Your task to perform on an android device: What's the weather today? Image 0: 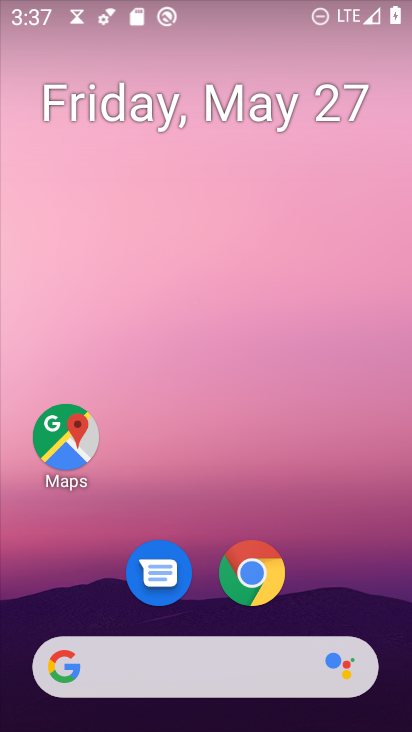
Step 0: click (166, 665)
Your task to perform on an android device: What's the weather today? Image 1: 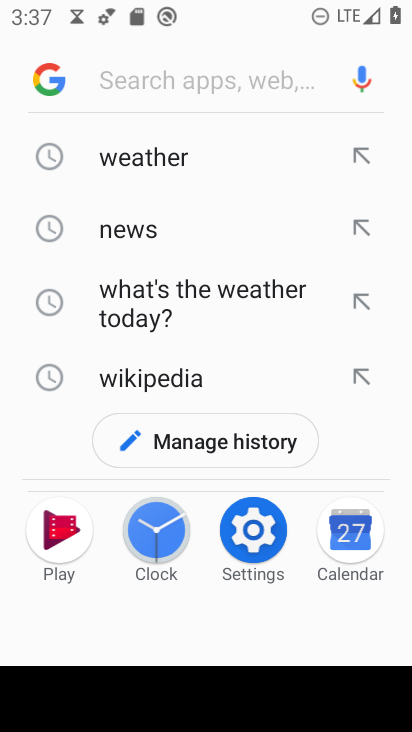
Step 1: type "what's the weather today"
Your task to perform on an android device: What's the weather today? Image 2: 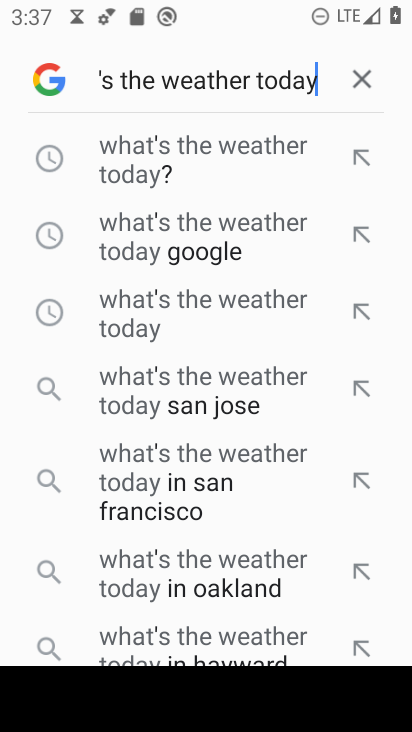
Step 2: click (185, 154)
Your task to perform on an android device: What's the weather today? Image 3: 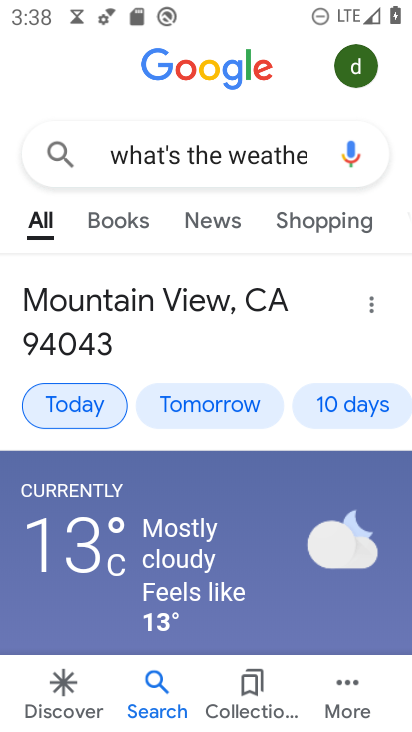
Step 3: task complete